Your task to perform on an android device: Open ESPN.com Image 0: 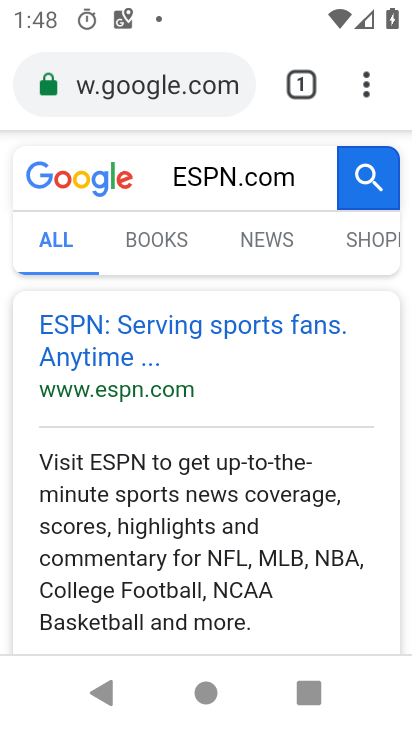
Step 0: press home button
Your task to perform on an android device: Open ESPN.com Image 1: 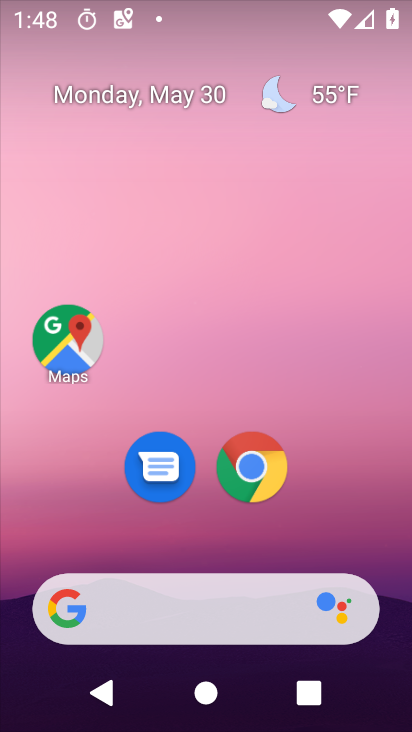
Step 1: click (246, 465)
Your task to perform on an android device: Open ESPN.com Image 2: 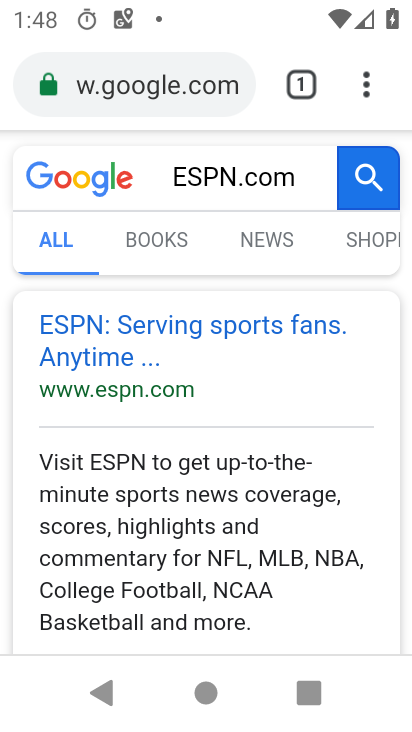
Step 2: task complete